Your task to perform on an android device: toggle pop-ups in chrome Image 0: 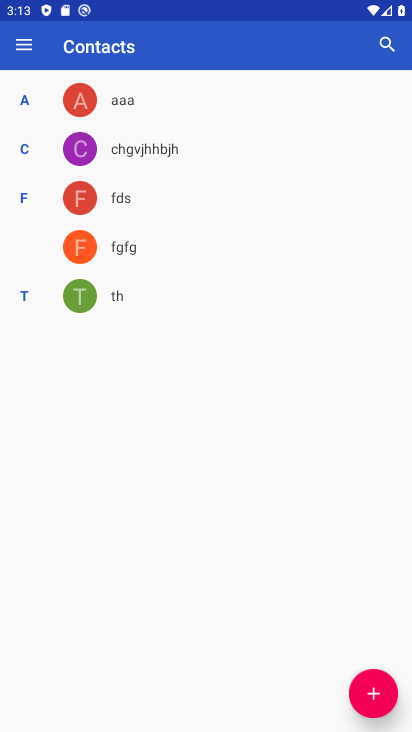
Step 0: press home button
Your task to perform on an android device: toggle pop-ups in chrome Image 1: 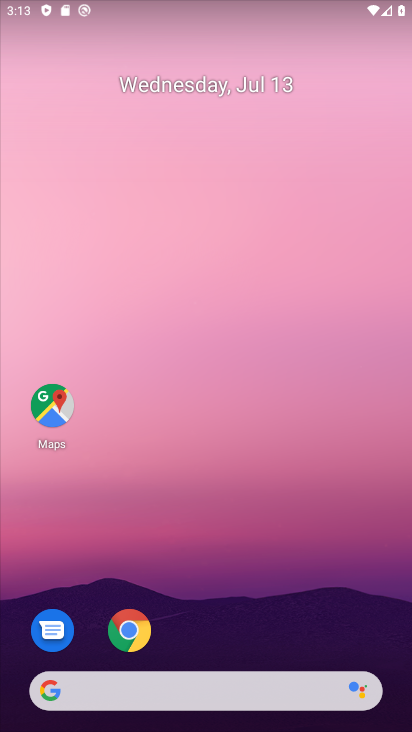
Step 1: click (130, 623)
Your task to perform on an android device: toggle pop-ups in chrome Image 2: 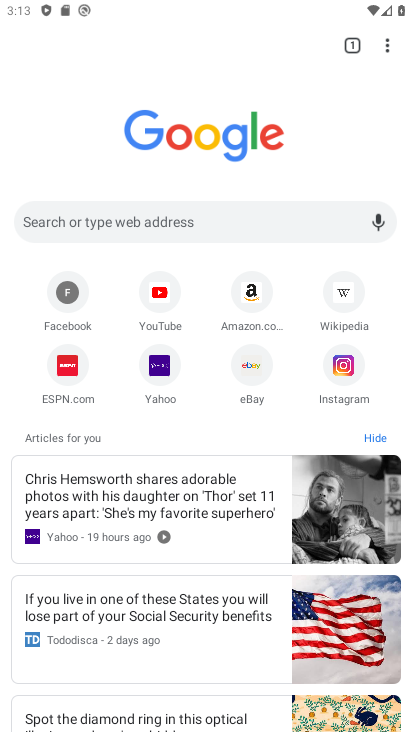
Step 2: click (389, 45)
Your task to perform on an android device: toggle pop-ups in chrome Image 3: 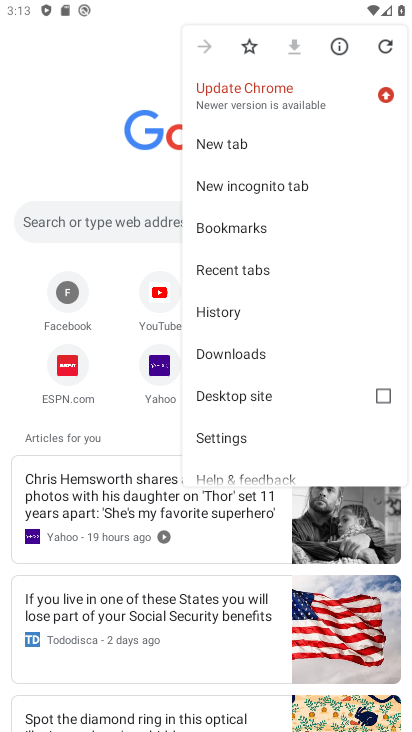
Step 3: click (226, 439)
Your task to perform on an android device: toggle pop-ups in chrome Image 4: 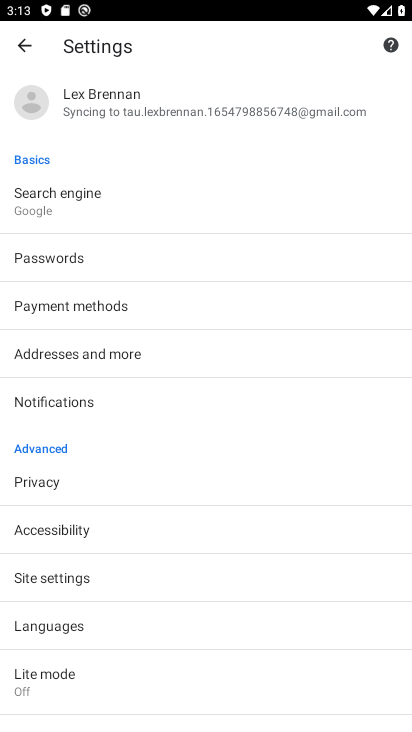
Step 4: click (65, 568)
Your task to perform on an android device: toggle pop-ups in chrome Image 5: 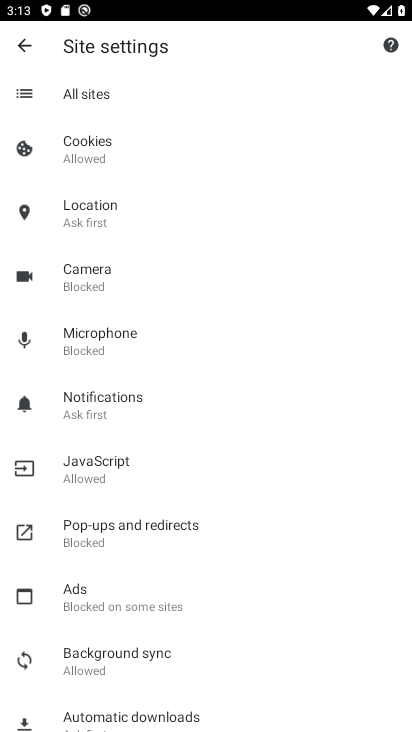
Step 5: click (117, 524)
Your task to perform on an android device: toggle pop-ups in chrome Image 6: 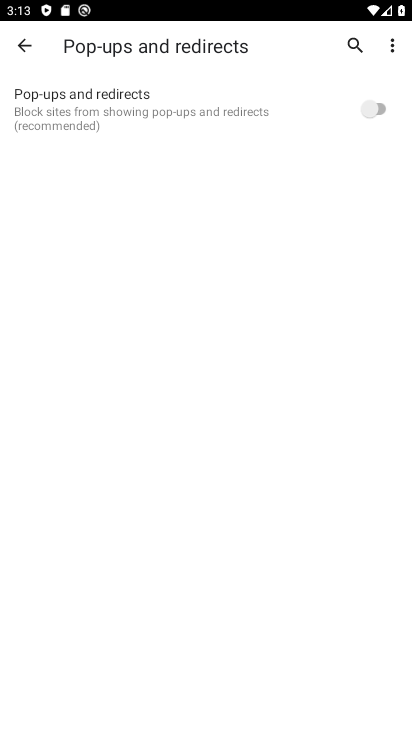
Step 6: click (372, 104)
Your task to perform on an android device: toggle pop-ups in chrome Image 7: 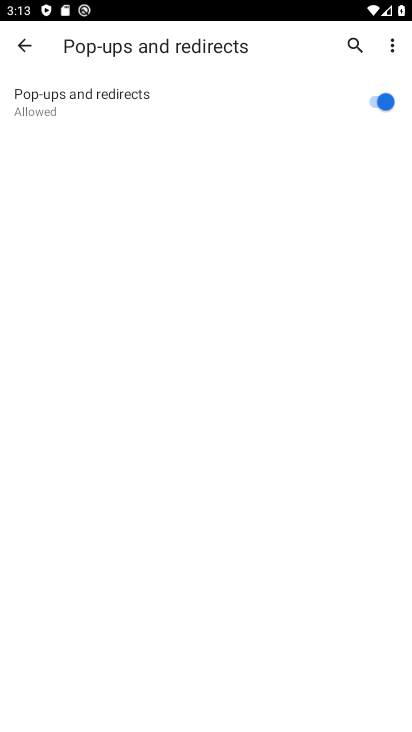
Step 7: task complete